Your task to perform on an android device: What's the weather going to be tomorrow? Image 0: 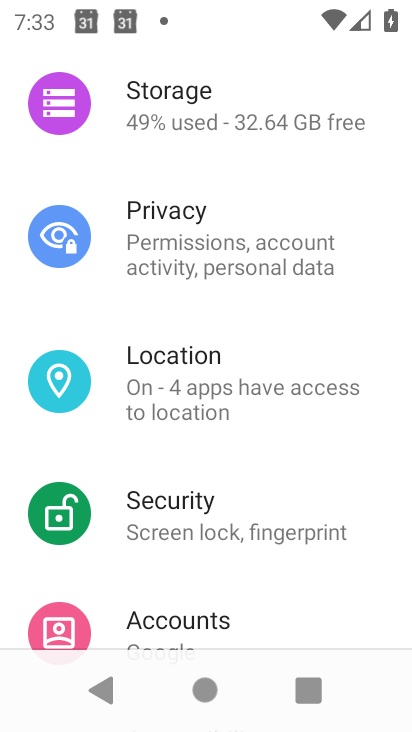
Step 0: press home button
Your task to perform on an android device: What's the weather going to be tomorrow? Image 1: 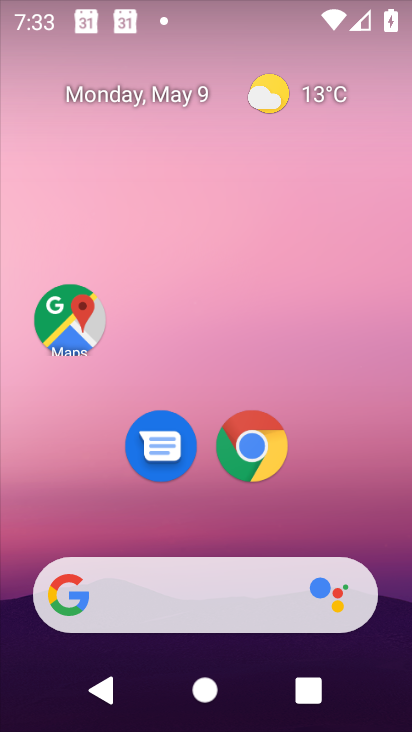
Step 1: drag from (65, 330) to (14, 336)
Your task to perform on an android device: What's the weather going to be tomorrow? Image 2: 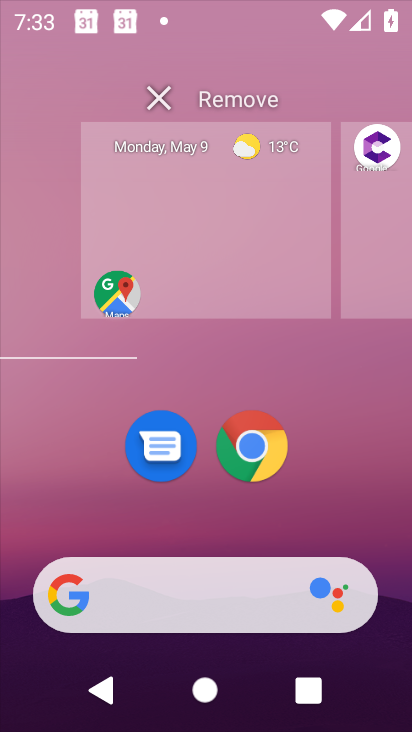
Step 2: click (274, 453)
Your task to perform on an android device: What's the weather going to be tomorrow? Image 3: 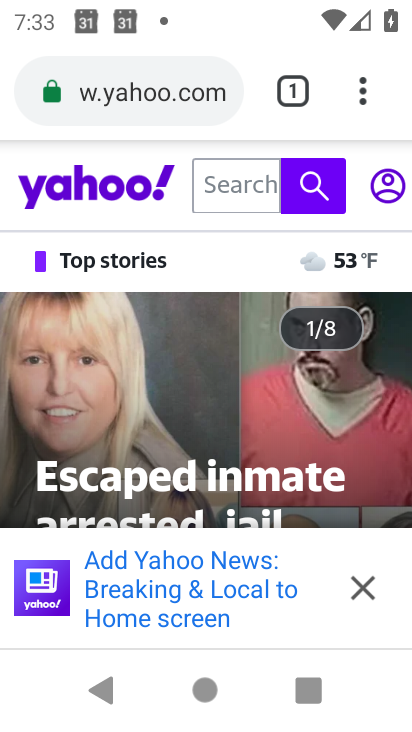
Step 3: click (119, 102)
Your task to perform on an android device: What's the weather going to be tomorrow? Image 4: 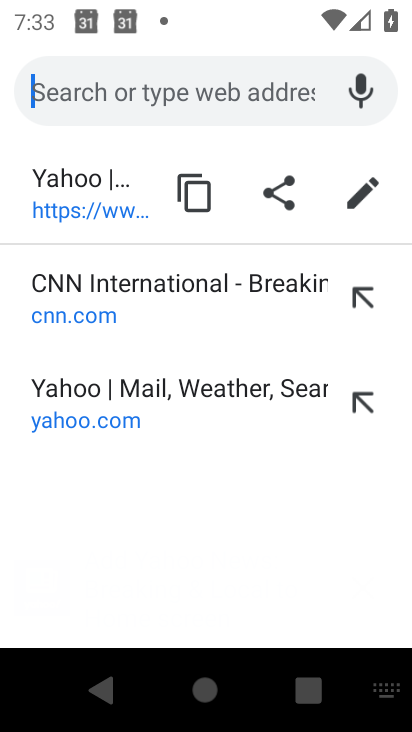
Step 4: type "whats the weather going to be tomorrow"
Your task to perform on an android device: What's the weather going to be tomorrow? Image 5: 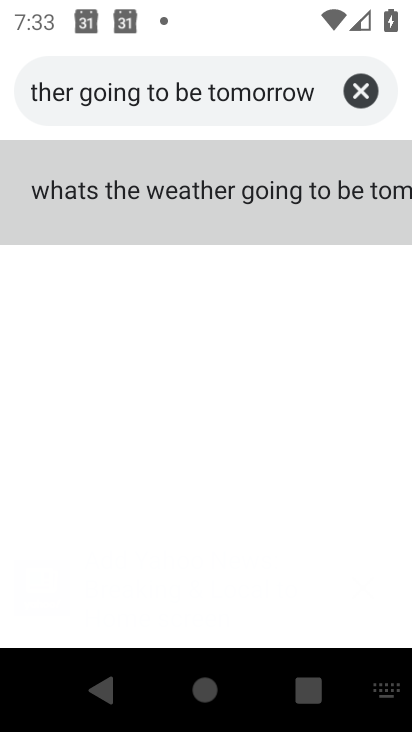
Step 5: click (175, 202)
Your task to perform on an android device: What's the weather going to be tomorrow? Image 6: 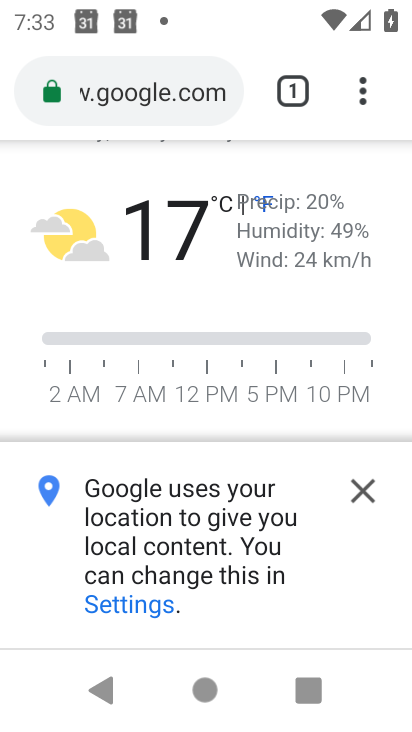
Step 6: click (361, 495)
Your task to perform on an android device: What's the weather going to be tomorrow? Image 7: 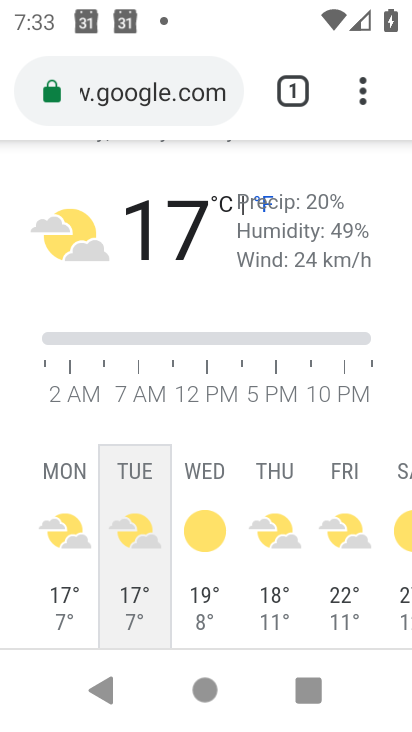
Step 7: task complete